Your task to perform on an android device: change the clock display to digital Image 0: 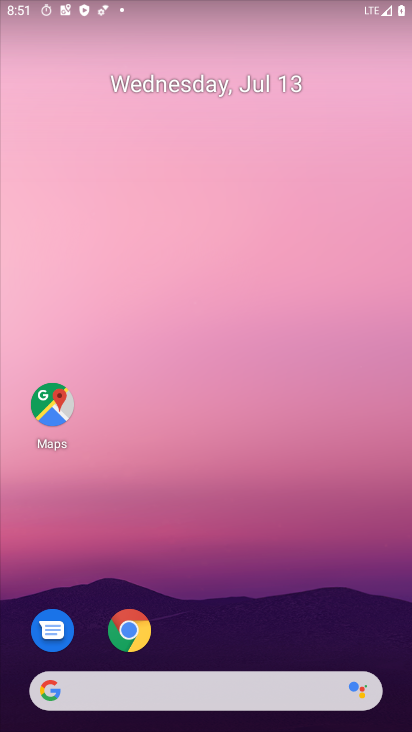
Step 0: drag from (327, 607) to (355, 164)
Your task to perform on an android device: change the clock display to digital Image 1: 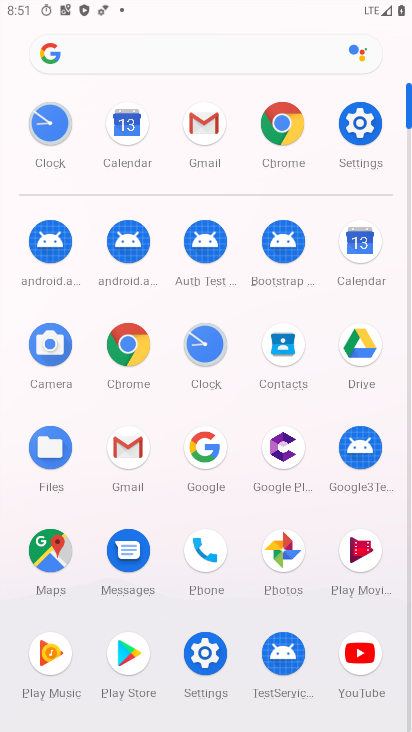
Step 1: click (208, 346)
Your task to perform on an android device: change the clock display to digital Image 2: 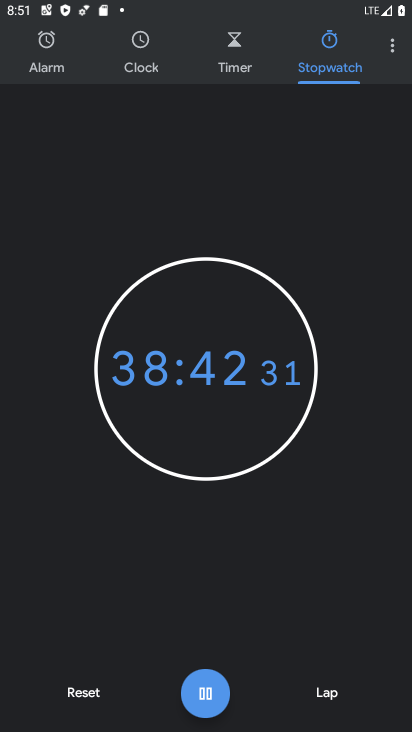
Step 2: click (389, 48)
Your task to perform on an android device: change the clock display to digital Image 3: 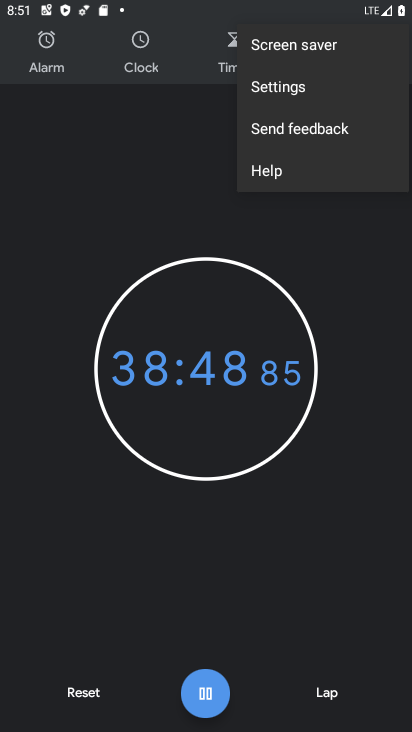
Step 3: click (304, 94)
Your task to perform on an android device: change the clock display to digital Image 4: 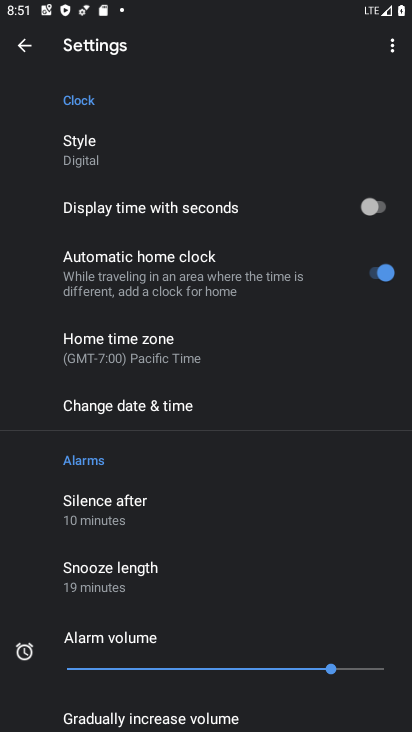
Step 4: task complete